Your task to perform on an android device: Open the map Image 0: 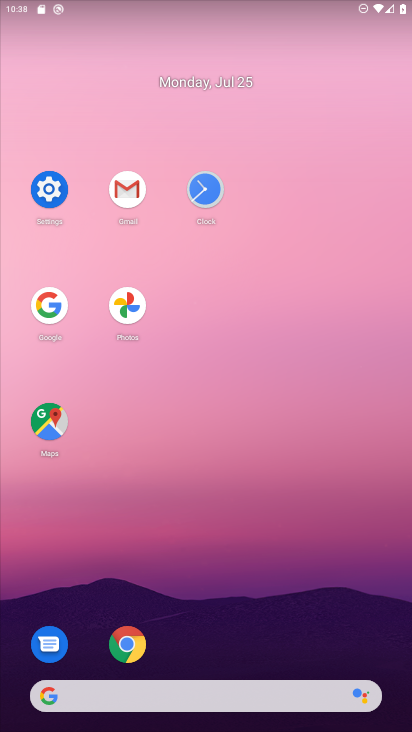
Step 0: drag from (229, 519) to (217, 397)
Your task to perform on an android device: Open the map Image 1: 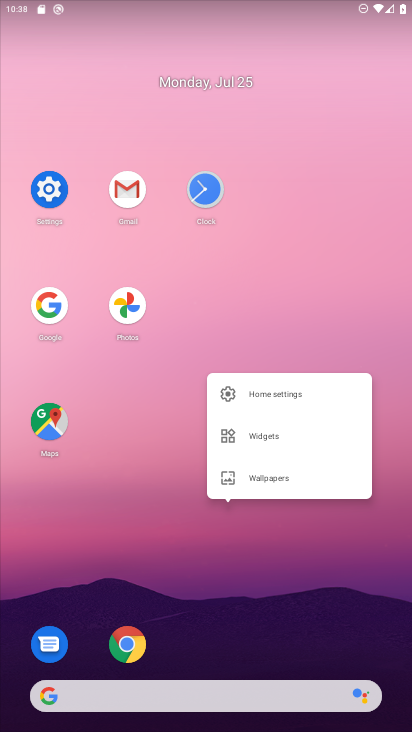
Step 1: click (105, 554)
Your task to perform on an android device: Open the map Image 2: 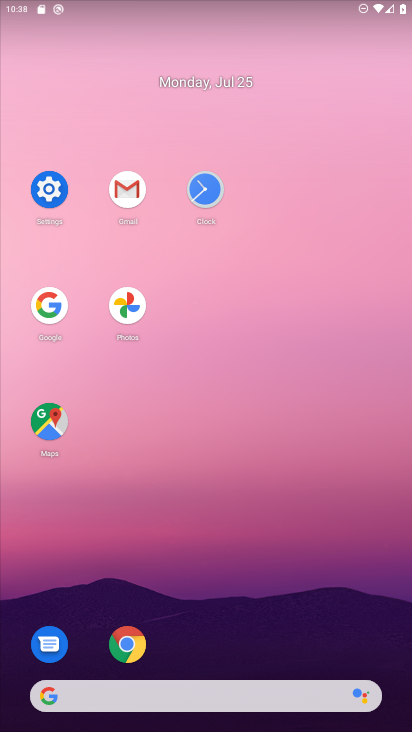
Step 2: click (46, 410)
Your task to perform on an android device: Open the map Image 3: 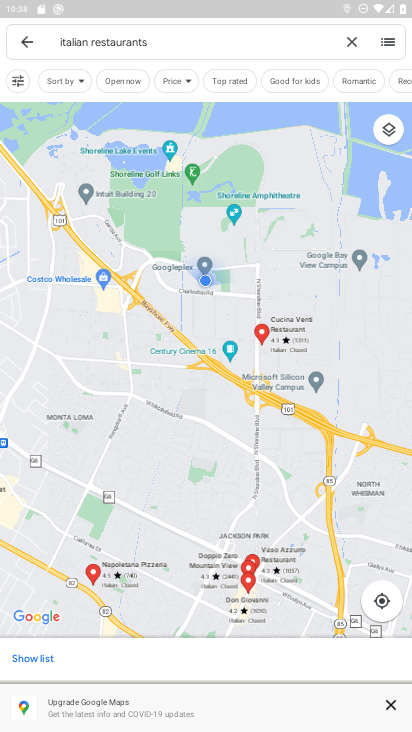
Step 3: task complete